Your task to perform on an android device: What's the weather going to be this weekend? Image 0: 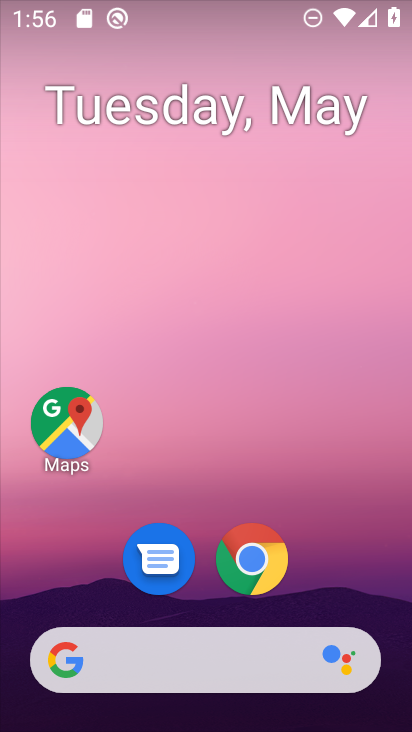
Step 0: drag from (397, 648) to (296, 183)
Your task to perform on an android device: What's the weather going to be this weekend? Image 1: 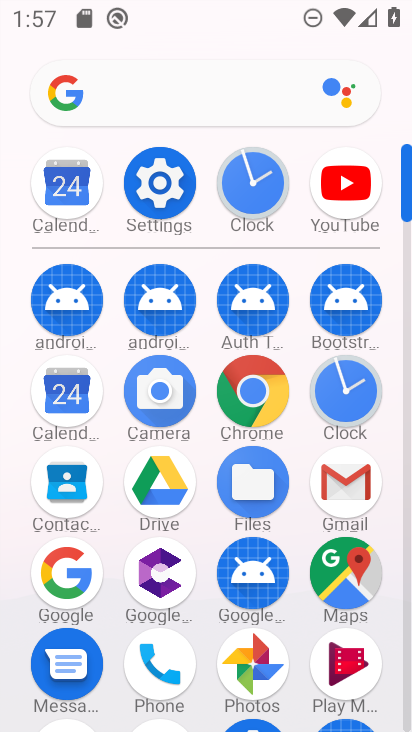
Step 1: click (60, 558)
Your task to perform on an android device: What's the weather going to be this weekend? Image 2: 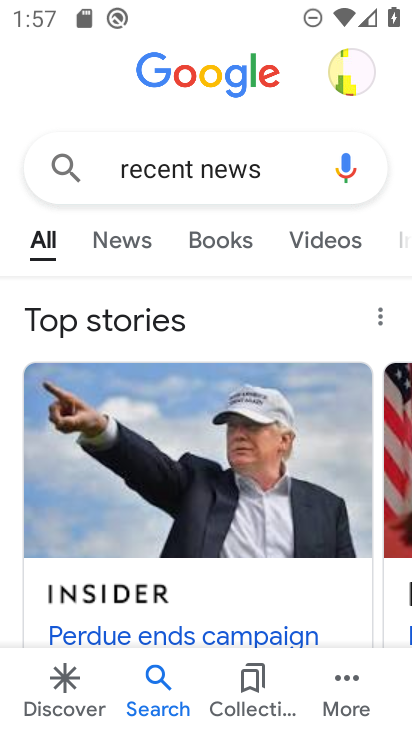
Step 2: press back button
Your task to perform on an android device: What's the weather going to be this weekend? Image 3: 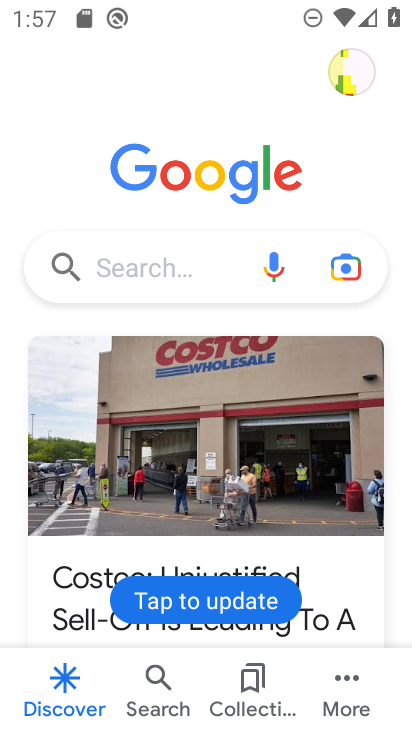
Step 3: click (145, 265)
Your task to perform on an android device: What's the weather going to be this weekend? Image 4: 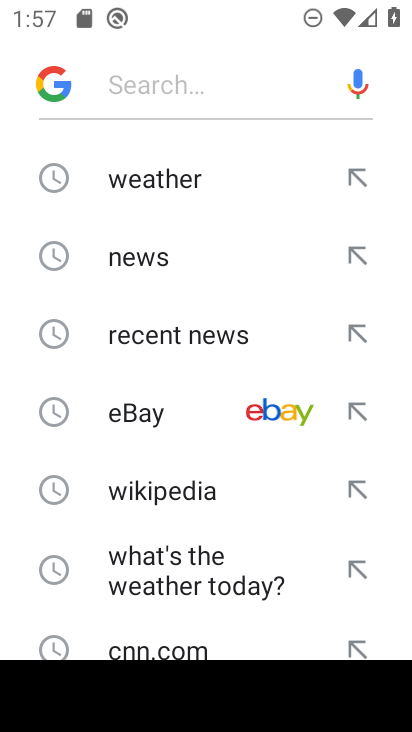
Step 4: drag from (191, 585) to (217, 147)
Your task to perform on an android device: What's the weather going to be this weekend? Image 5: 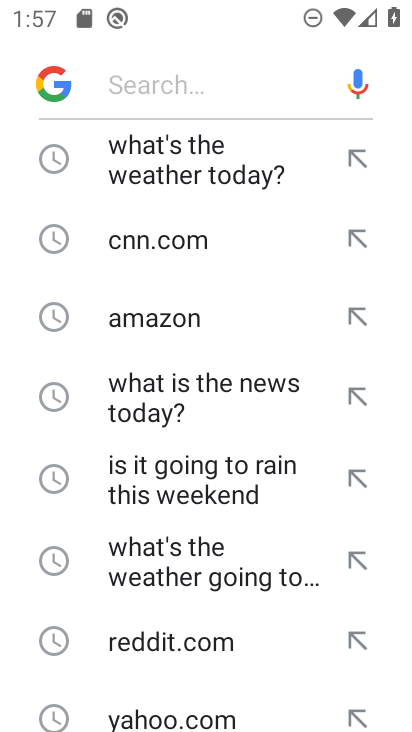
Step 5: drag from (186, 560) to (178, 238)
Your task to perform on an android device: What's the weather going to be this weekend? Image 6: 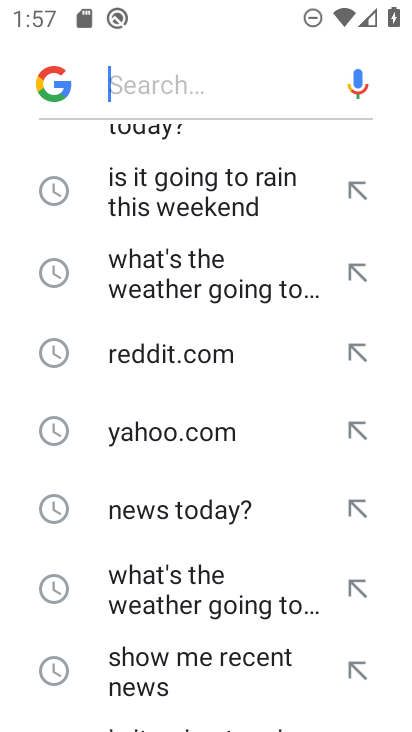
Step 6: drag from (180, 607) to (246, 288)
Your task to perform on an android device: What's the weather going to be this weekend? Image 7: 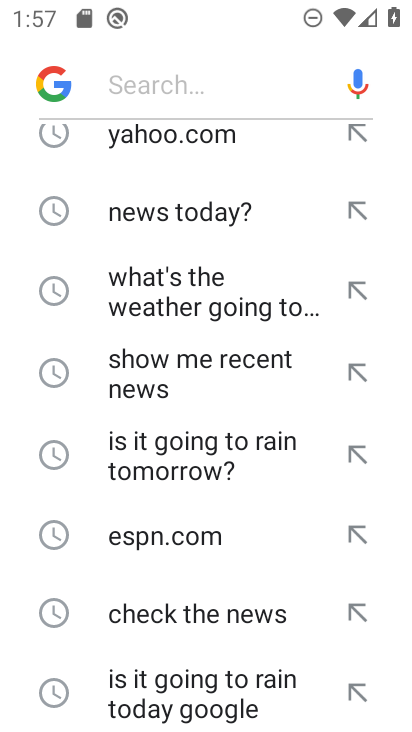
Step 7: drag from (135, 562) to (181, 149)
Your task to perform on an android device: What's the weather going to be this weekend? Image 8: 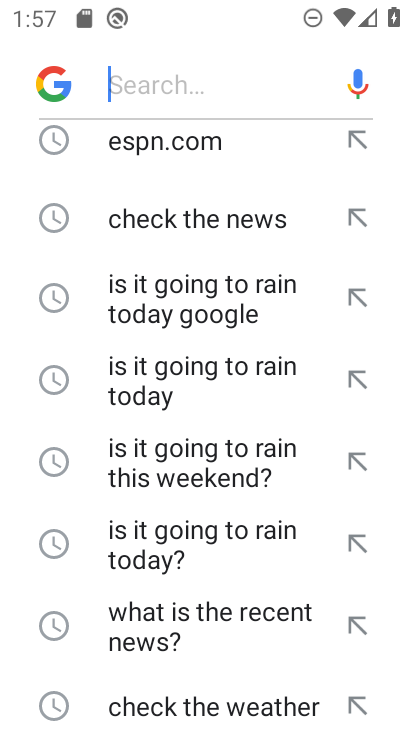
Step 8: drag from (125, 599) to (155, 332)
Your task to perform on an android device: What's the weather going to be this weekend? Image 9: 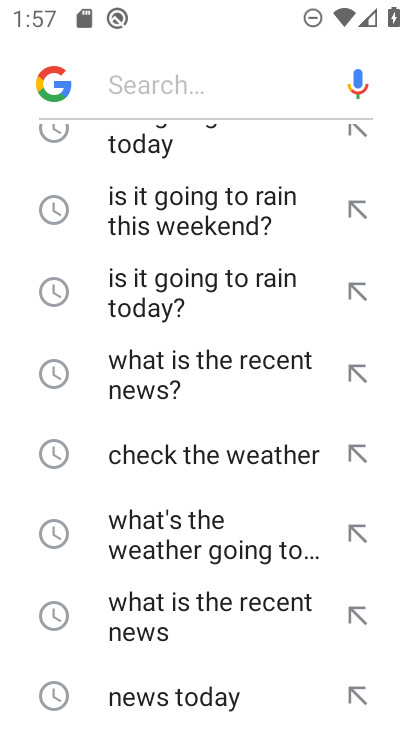
Step 9: click (143, 545)
Your task to perform on an android device: What's the weather going to be this weekend? Image 10: 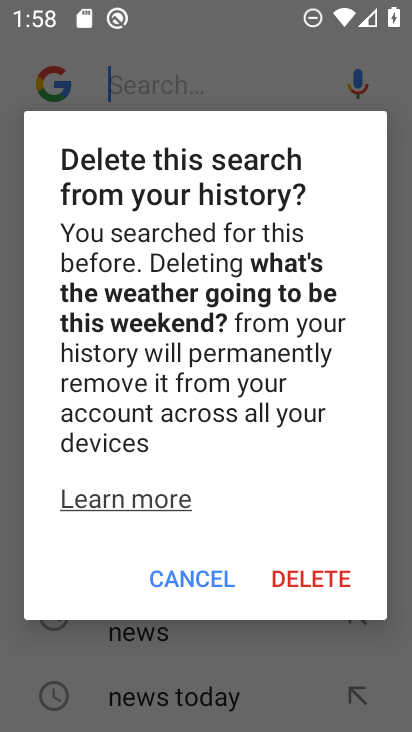
Step 10: click (171, 573)
Your task to perform on an android device: What's the weather going to be this weekend? Image 11: 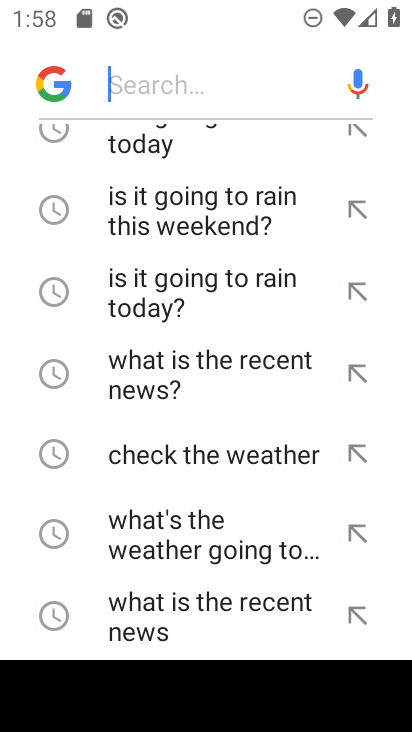
Step 11: click (212, 539)
Your task to perform on an android device: What's the weather going to be this weekend? Image 12: 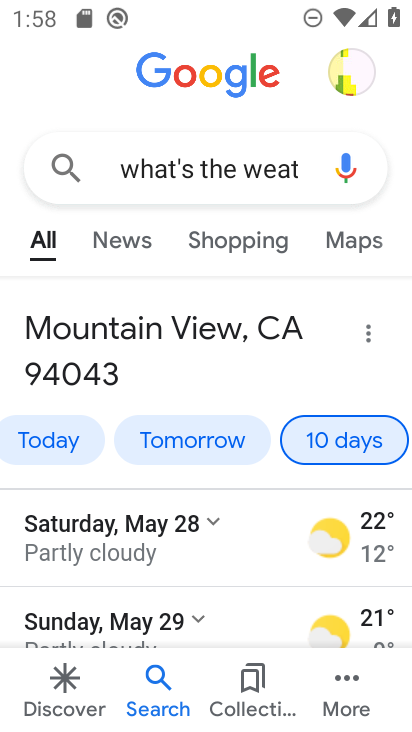
Step 12: task complete